Your task to perform on an android device: open device folders in google photos Image 0: 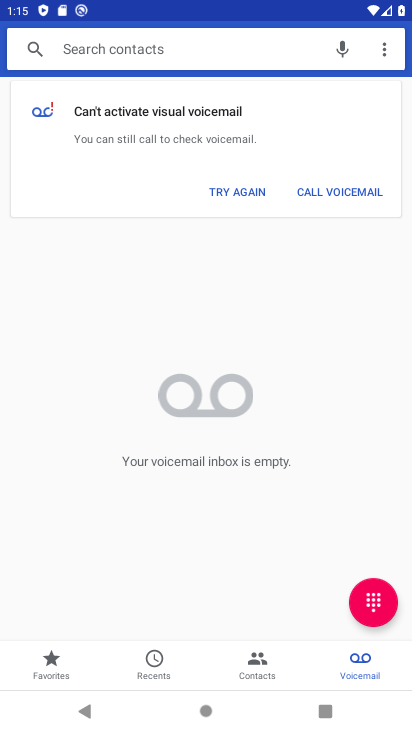
Step 0: drag from (168, 571) to (253, 248)
Your task to perform on an android device: open device folders in google photos Image 1: 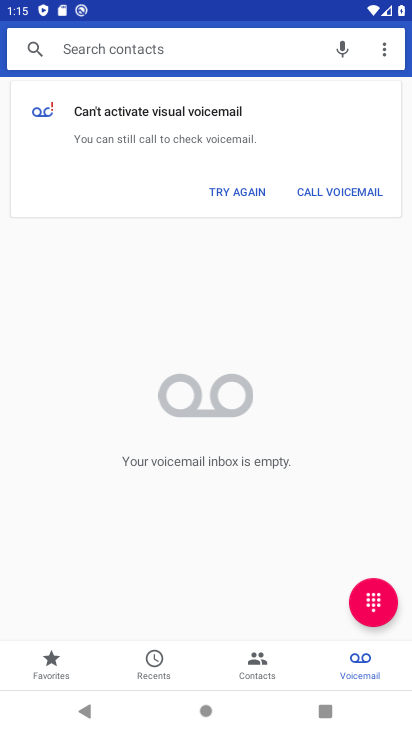
Step 1: press home button
Your task to perform on an android device: open device folders in google photos Image 2: 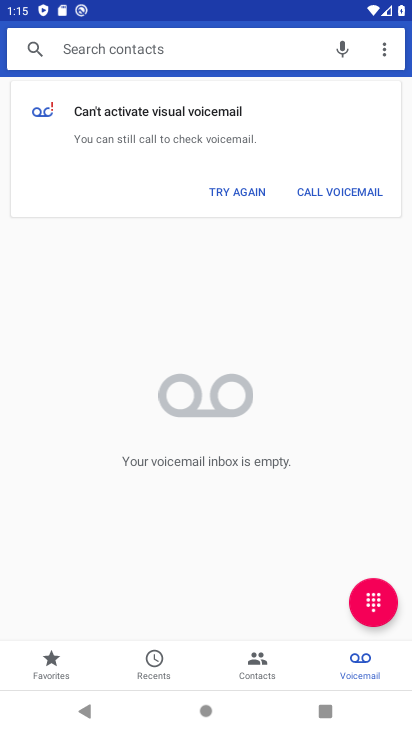
Step 2: press home button
Your task to perform on an android device: open device folders in google photos Image 3: 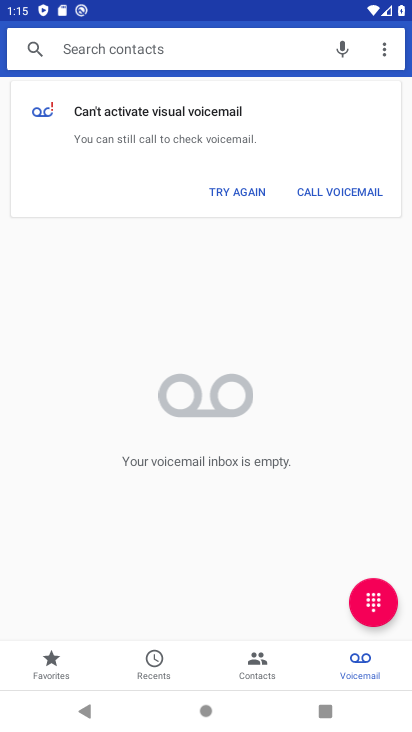
Step 3: click (317, 77)
Your task to perform on an android device: open device folders in google photos Image 4: 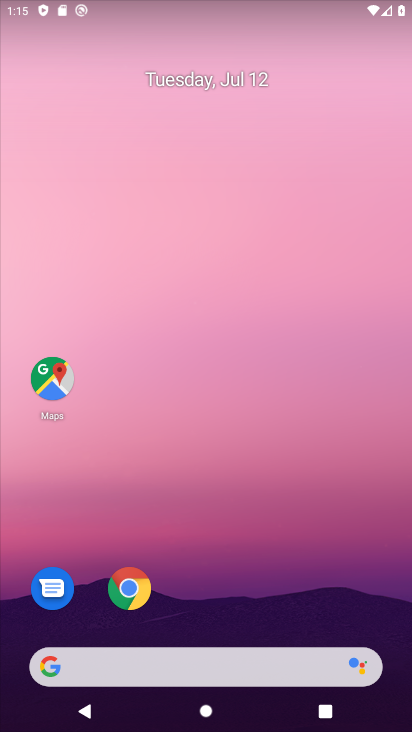
Step 4: drag from (216, 333) to (248, 70)
Your task to perform on an android device: open device folders in google photos Image 5: 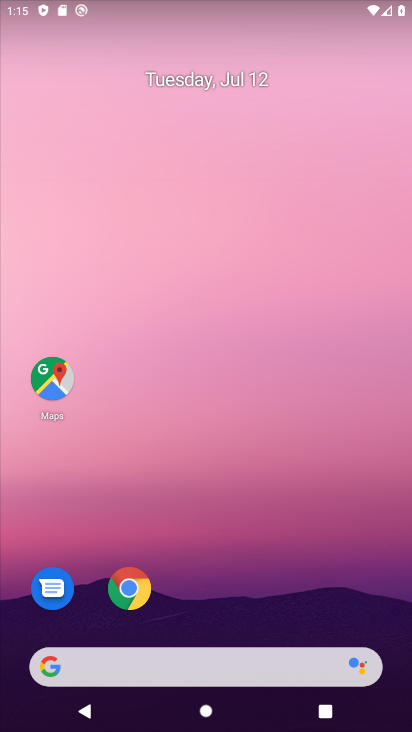
Step 5: drag from (187, 581) to (214, 45)
Your task to perform on an android device: open device folders in google photos Image 6: 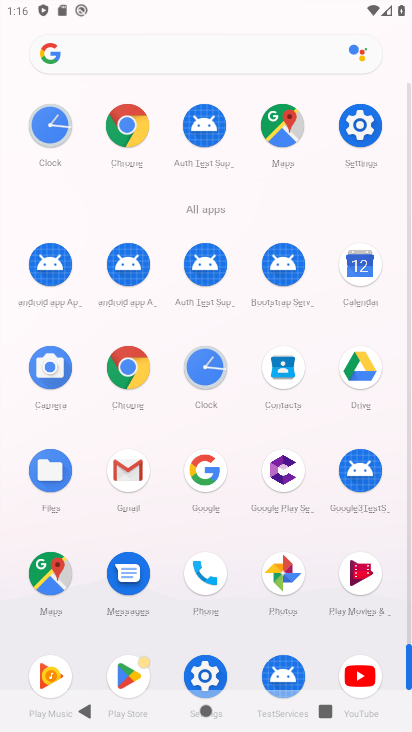
Step 6: click (277, 566)
Your task to perform on an android device: open device folders in google photos Image 7: 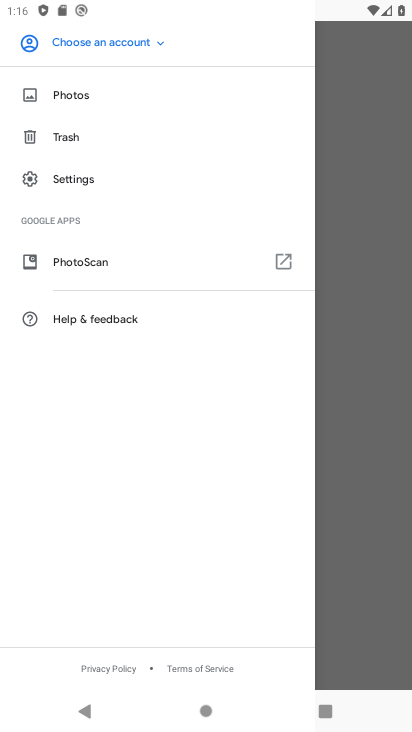
Step 7: click (139, 43)
Your task to perform on an android device: open device folders in google photos Image 8: 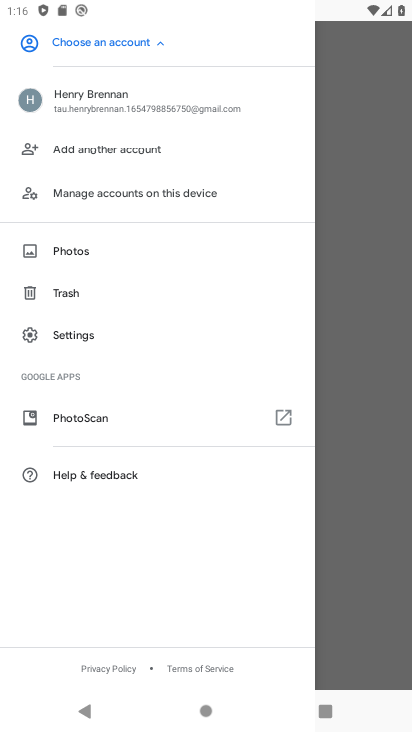
Step 8: click (120, 90)
Your task to perform on an android device: open device folders in google photos Image 9: 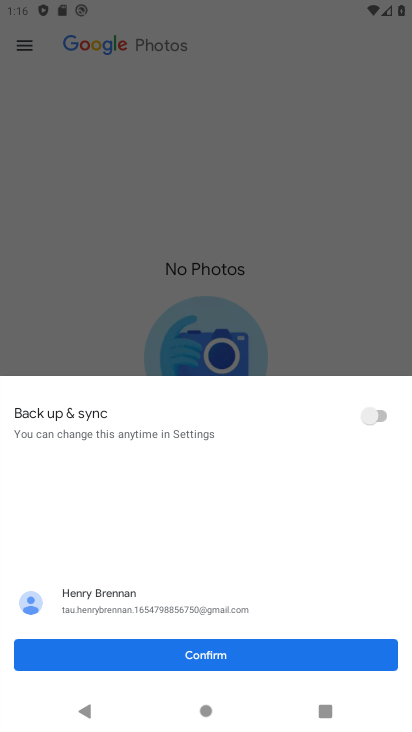
Step 9: click (213, 671)
Your task to perform on an android device: open device folders in google photos Image 10: 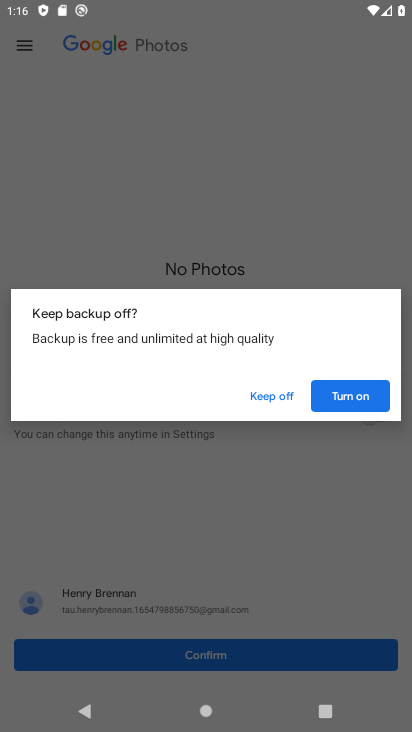
Step 10: click (259, 390)
Your task to perform on an android device: open device folders in google photos Image 11: 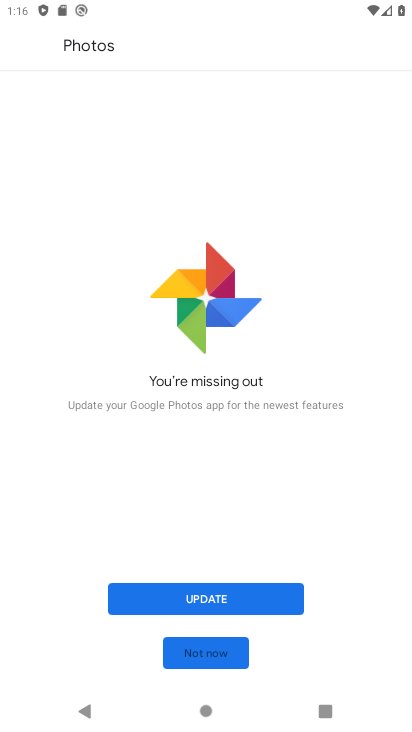
Step 11: click (24, 42)
Your task to perform on an android device: open device folders in google photos Image 12: 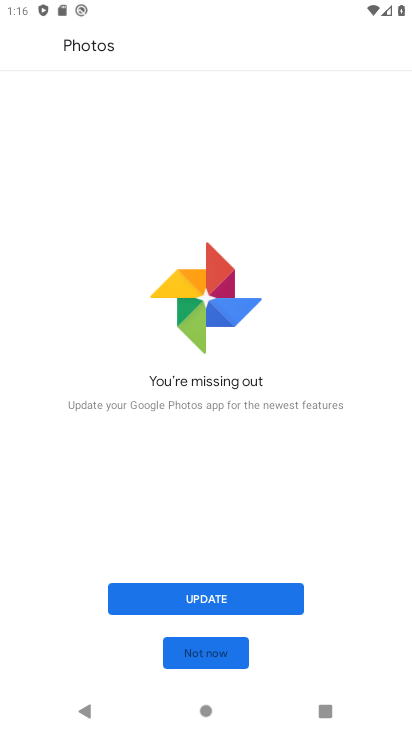
Step 12: click (190, 653)
Your task to perform on an android device: open device folders in google photos Image 13: 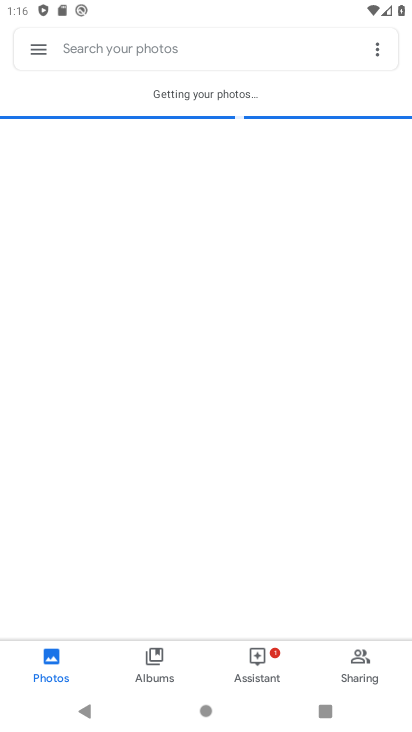
Step 13: click (35, 57)
Your task to perform on an android device: open device folders in google photos Image 14: 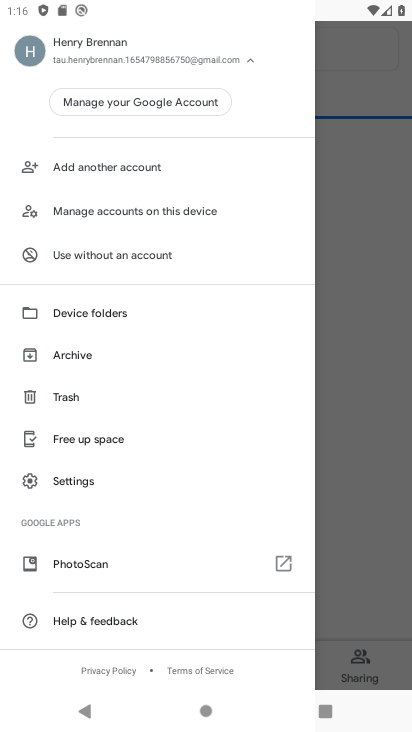
Step 14: click (109, 311)
Your task to perform on an android device: open device folders in google photos Image 15: 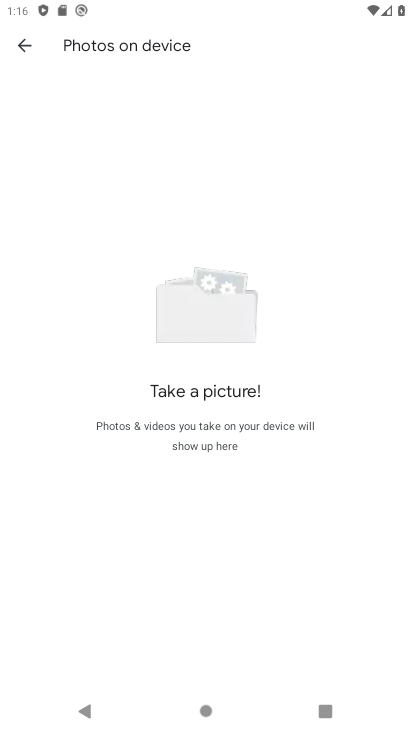
Step 15: task complete